Your task to perform on an android device: turn on priority inbox in the gmail app Image 0: 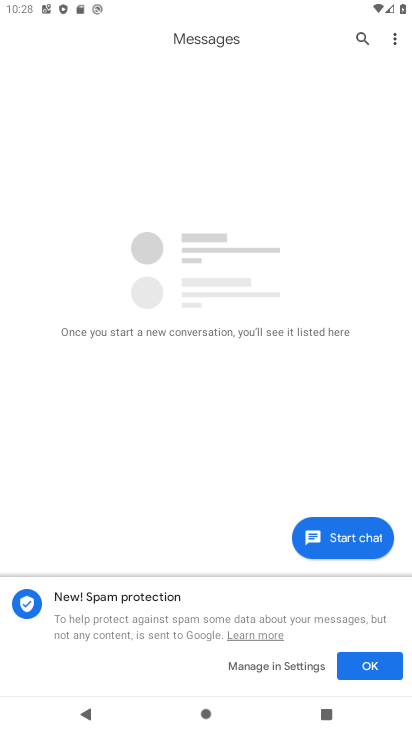
Step 0: press home button
Your task to perform on an android device: turn on priority inbox in the gmail app Image 1: 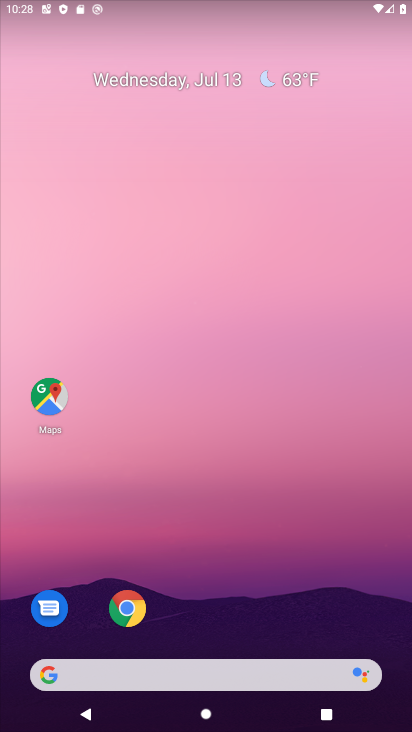
Step 1: drag from (274, 581) to (313, 138)
Your task to perform on an android device: turn on priority inbox in the gmail app Image 2: 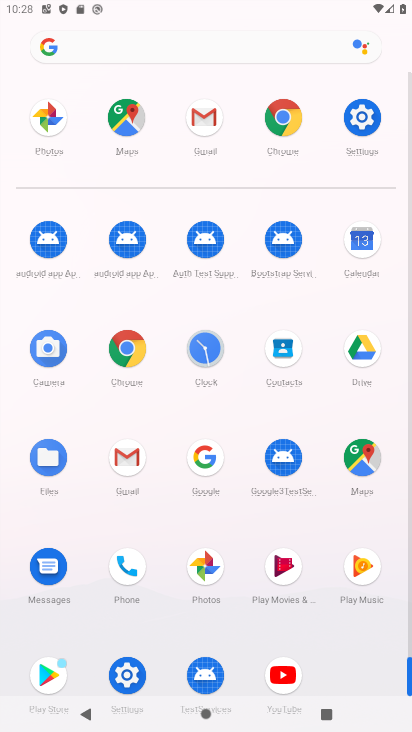
Step 2: click (123, 447)
Your task to perform on an android device: turn on priority inbox in the gmail app Image 3: 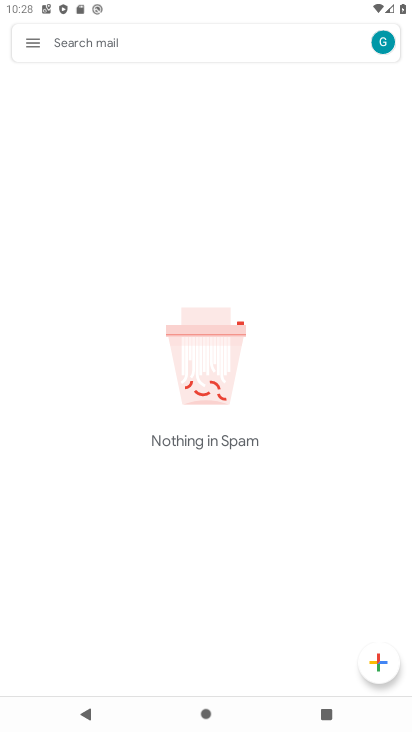
Step 3: click (34, 39)
Your task to perform on an android device: turn on priority inbox in the gmail app Image 4: 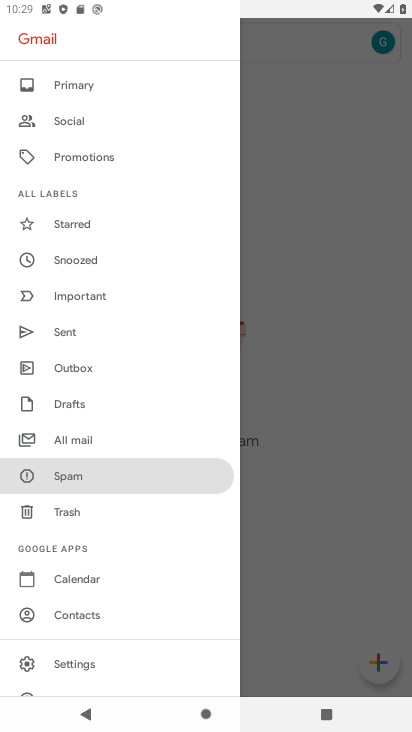
Step 4: click (60, 654)
Your task to perform on an android device: turn on priority inbox in the gmail app Image 5: 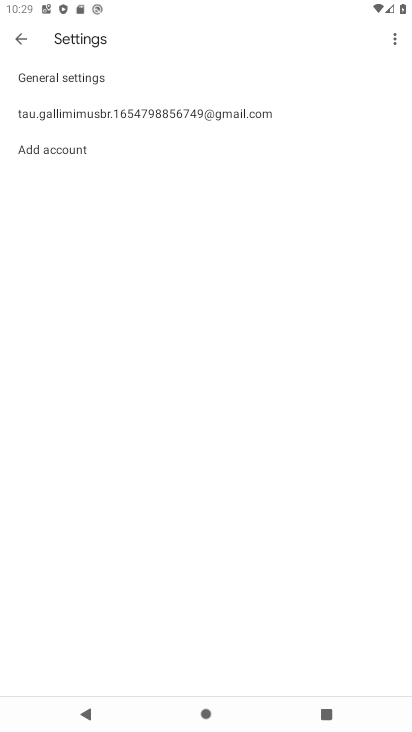
Step 5: click (114, 113)
Your task to perform on an android device: turn on priority inbox in the gmail app Image 6: 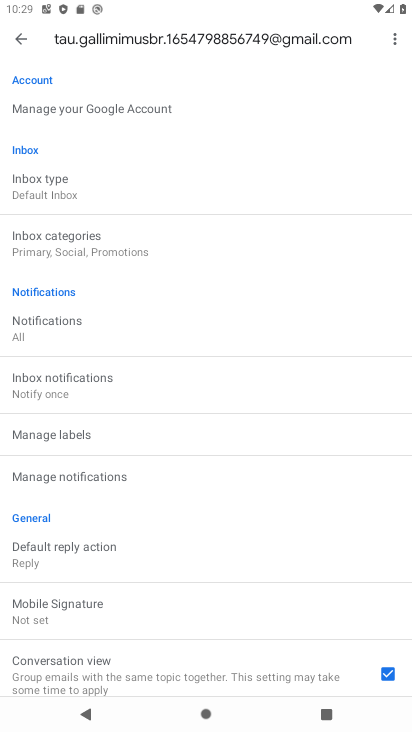
Step 6: click (68, 180)
Your task to perform on an android device: turn on priority inbox in the gmail app Image 7: 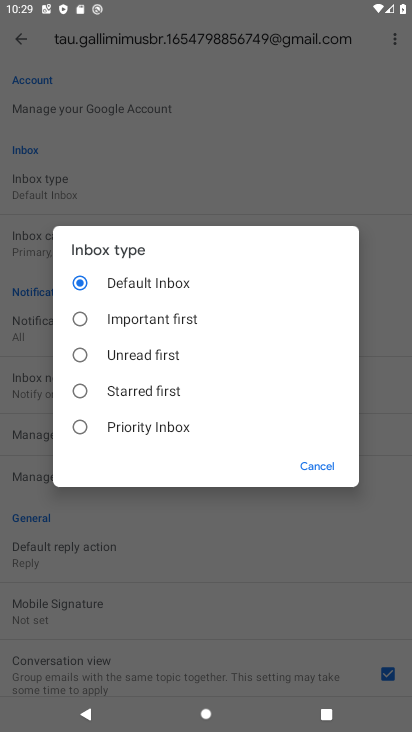
Step 7: click (112, 416)
Your task to perform on an android device: turn on priority inbox in the gmail app Image 8: 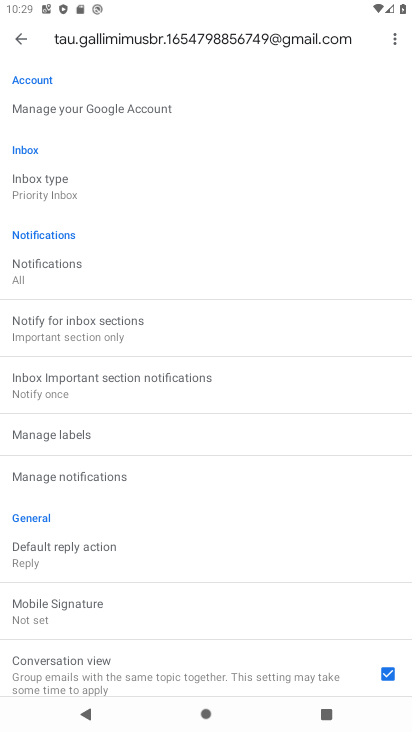
Step 8: task complete